Your task to perform on an android device: Go to Wikipedia Image 0: 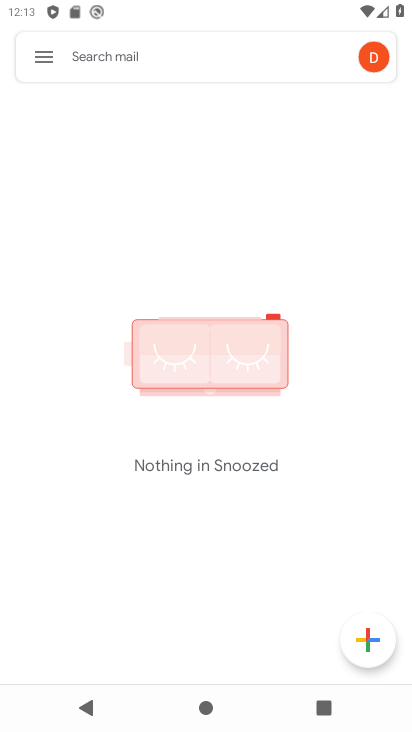
Step 0: press home button
Your task to perform on an android device: Go to Wikipedia Image 1: 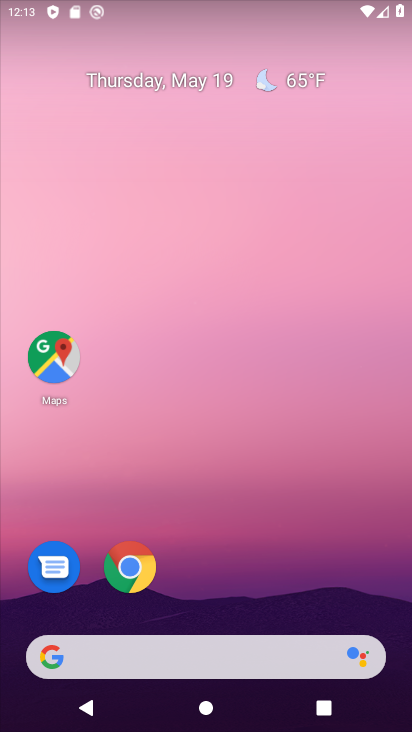
Step 1: click (131, 567)
Your task to perform on an android device: Go to Wikipedia Image 2: 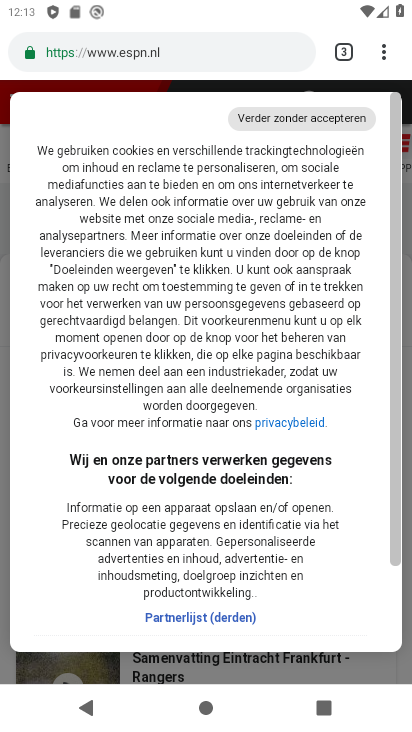
Step 2: click (131, 567)
Your task to perform on an android device: Go to Wikipedia Image 3: 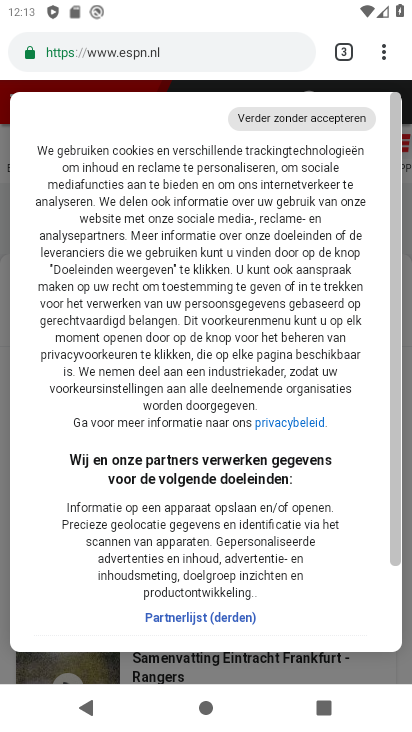
Step 3: click (352, 55)
Your task to perform on an android device: Go to Wikipedia Image 4: 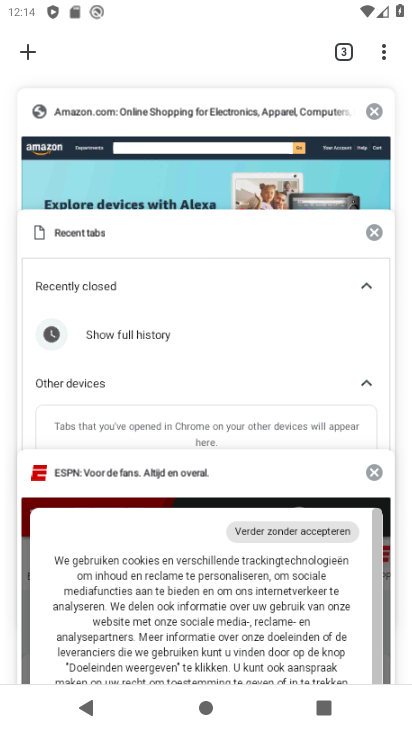
Step 4: click (347, 48)
Your task to perform on an android device: Go to Wikipedia Image 5: 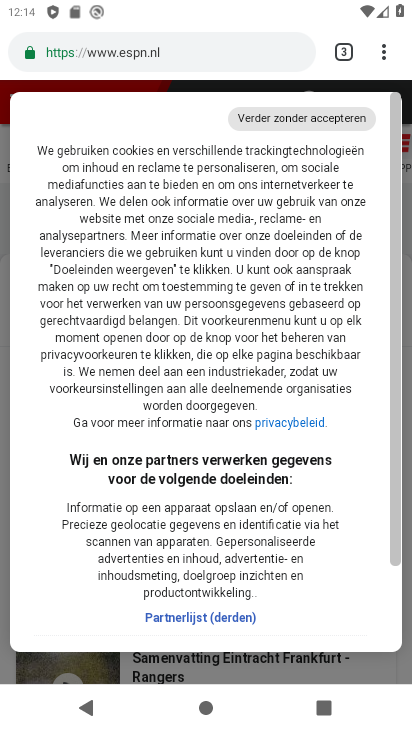
Step 5: click (347, 48)
Your task to perform on an android device: Go to Wikipedia Image 6: 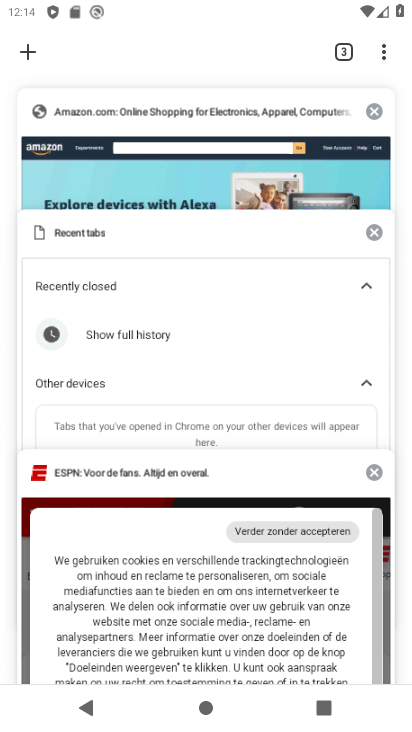
Step 6: click (29, 49)
Your task to perform on an android device: Go to Wikipedia Image 7: 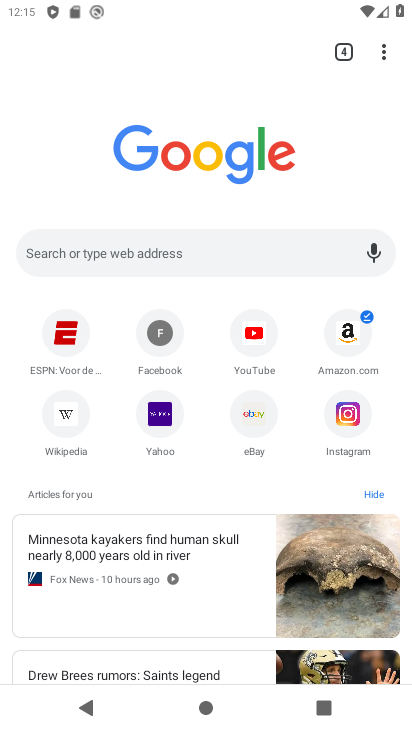
Step 7: click (61, 413)
Your task to perform on an android device: Go to Wikipedia Image 8: 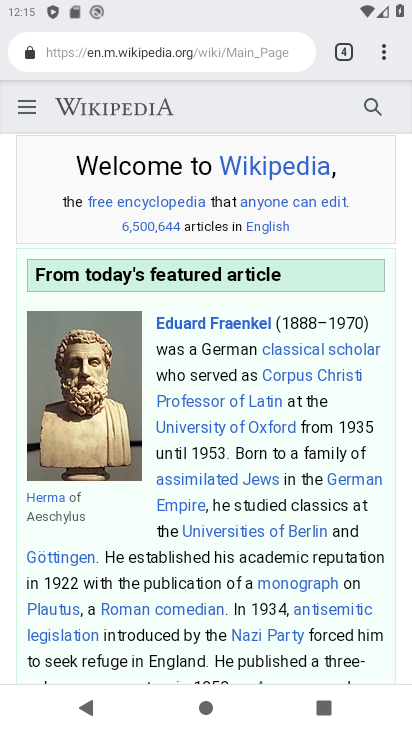
Step 8: task complete